Your task to perform on an android device: open wifi settings Image 0: 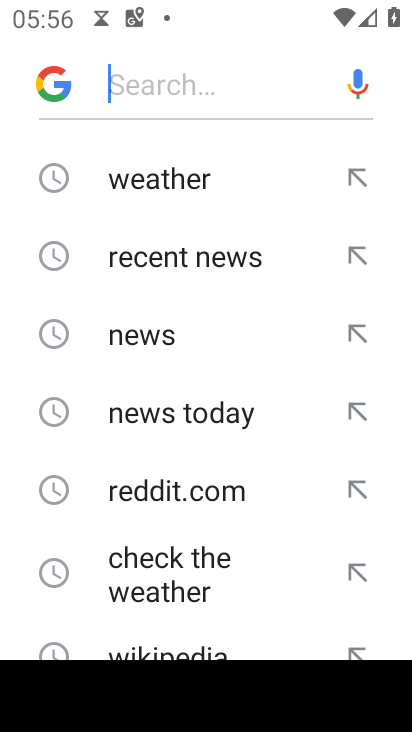
Step 0: press home button
Your task to perform on an android device: open wifi settings Image 1: 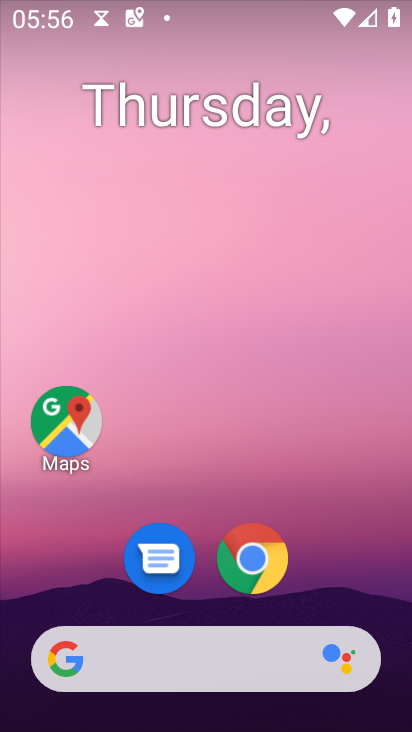
Step 1: drag from (323, 466) to (340, 79)
Your task to perform on an android device: open wifi settings Image 2: 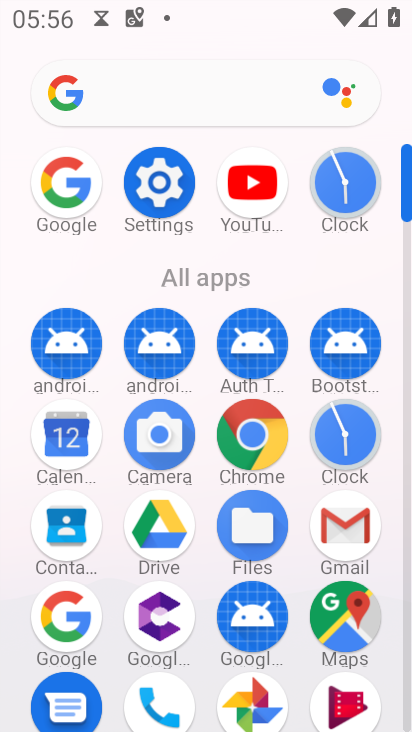
Step 2: click (147, 214)
Your task to perform on an android device: open wifi settings Image 3: 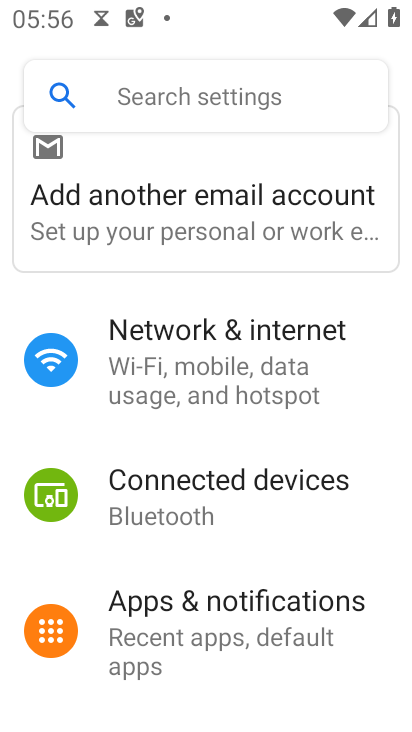
Step 3: click (266, 355)
Your task to perform on an android device: open wifi settings Image 4: 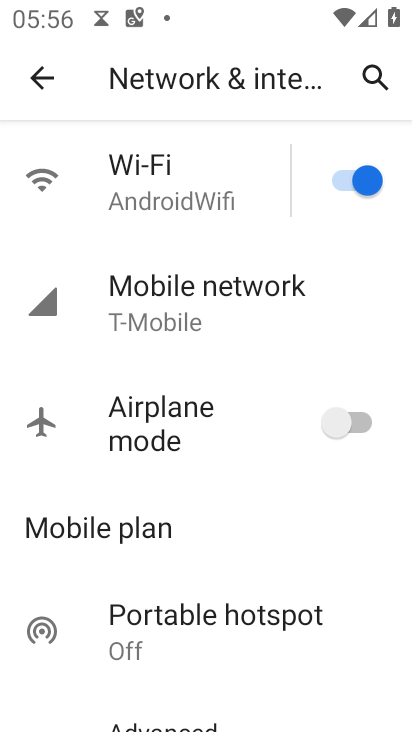
Step 4: click (188, 202)
Your task to perform on an android device: open wifi settings Image 5: 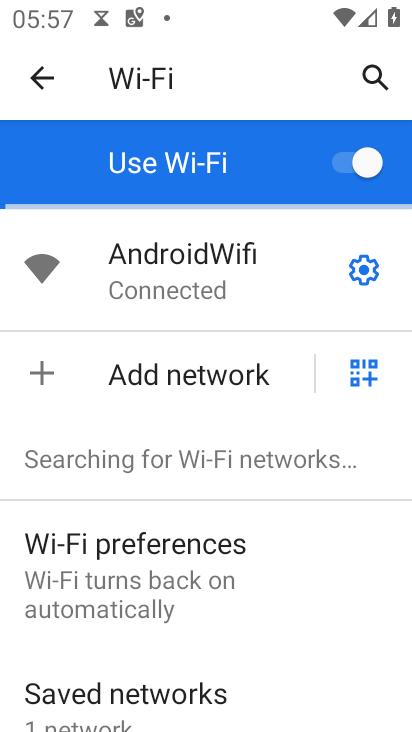
Step 5: task complete